Your task to perform on an android device: Show the shopping cart on ebay.com. Add "jbl charge 4" to the cart on ebay.com, then select checkout. Image 0: 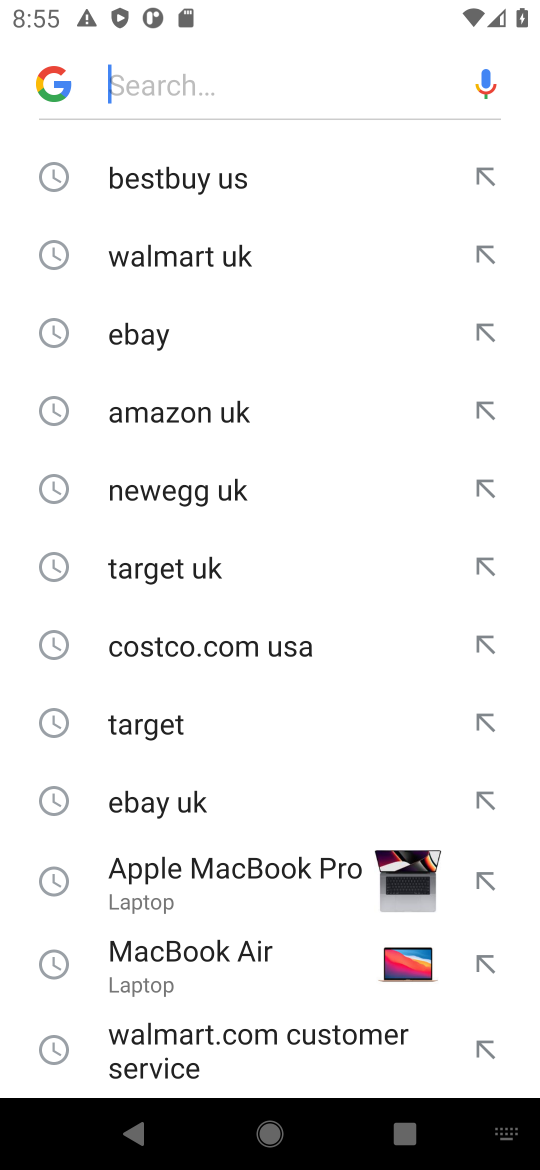
Step 0: press home button
Your task to perform on an android device: Show the shopping cart on ebay.com. Add "jbl charge 4" to the cart on ebay.com, then select checkout. Image 1: 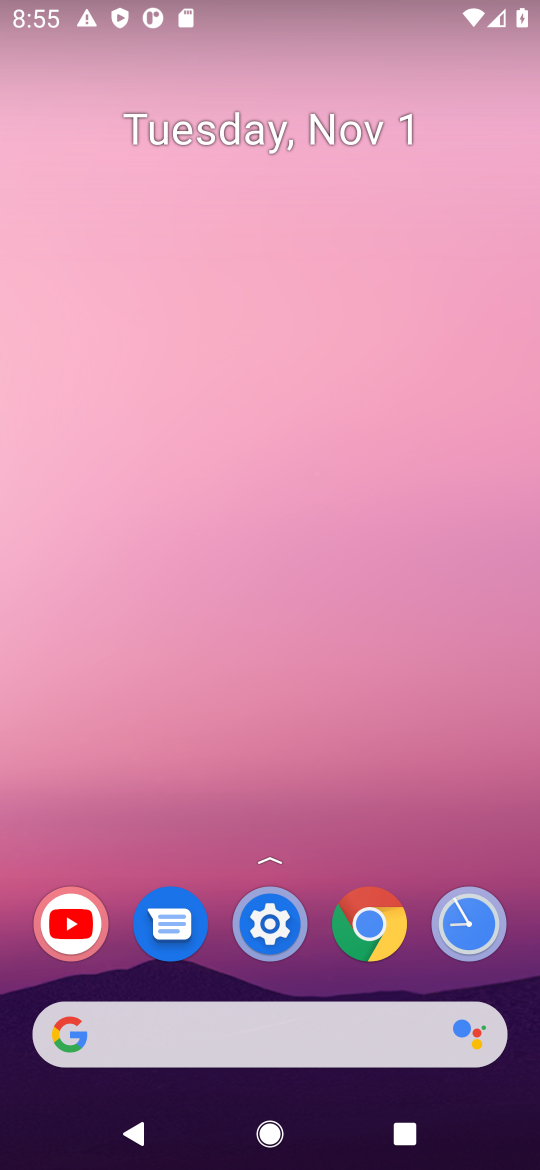
Step 1: click (382, 911)
Your task to perform on an android device: Show the shopping cart on ebay.com. Add "jbl charge 4" to the cart on ebay.com, then select checkout. Image 2: 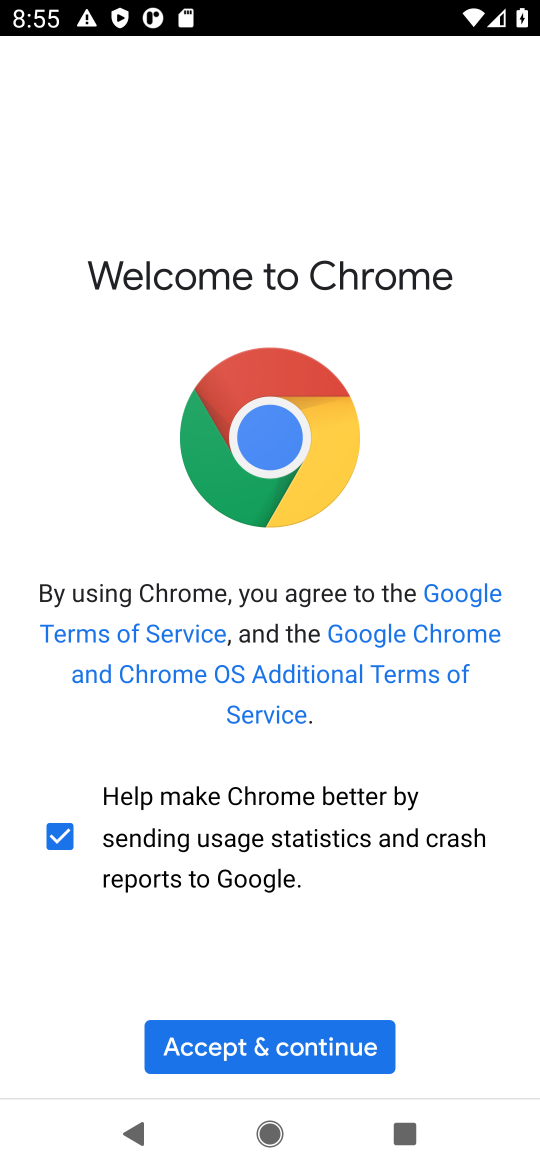
Step 2: click (231, 1039)
Your task to perform on an android device: Show the shopping cart on ebay.com. Add "jbl charge 4" to the cart on ebay.com, then select checkout. Image 3: 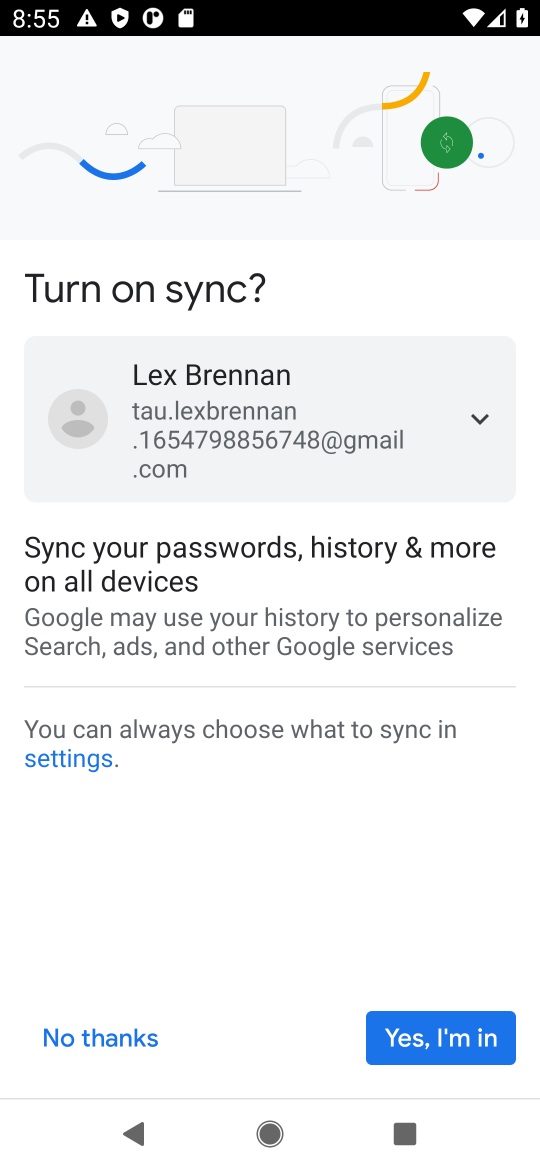
Step 3: click (114, 1038)
Your task to perform on an android device: Show the shopping cart on ebay.com. Add "jbl charge 4" to the cart on ebay.com, then select checkout. Image 4: 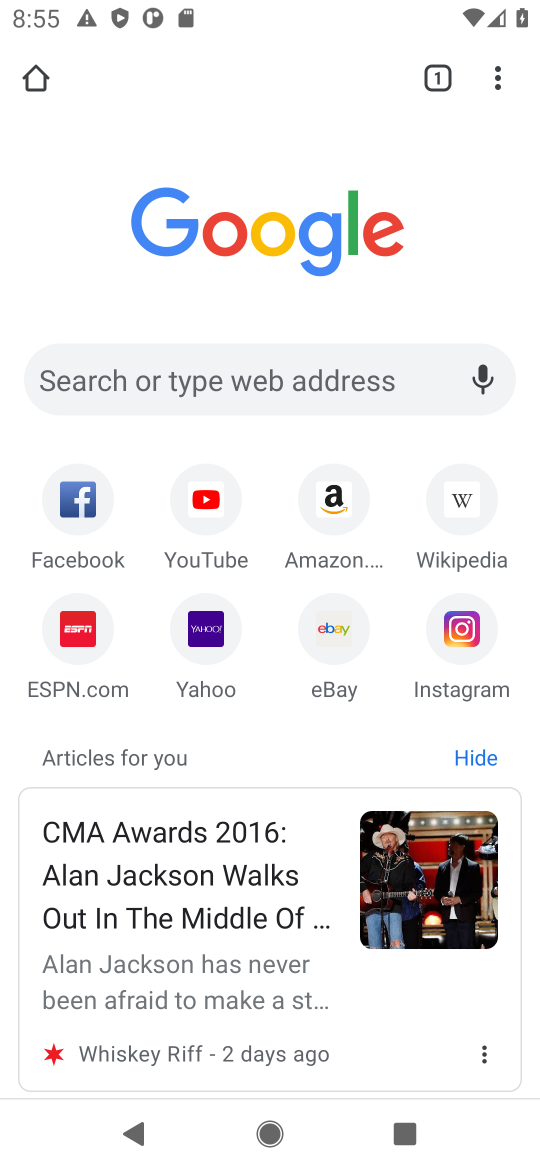
Step 4: click (336, 635)
Your task to perform on an android device: Show the shopping cart on ebay.com. Add "jbl charge 4" to the cart on ebay.com, then select checkout. Image 5: 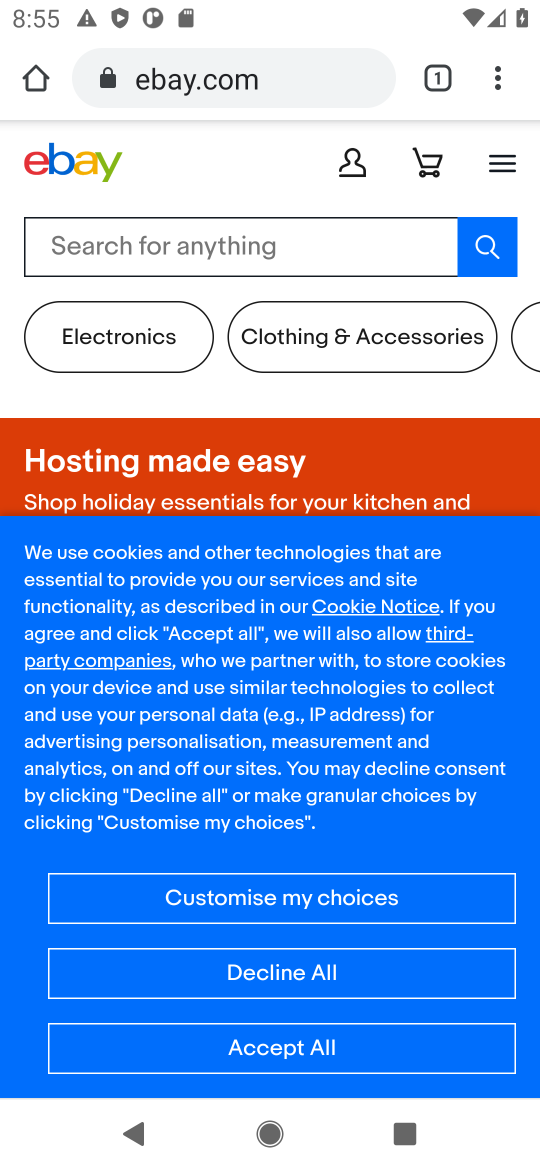
Step 5: click (420, 166)
Your task to perform on an android device: Show the shopping cart on ebay.com. Add "jbl charge 4" to the cart on ebay.com, then select checkout. Image 6: 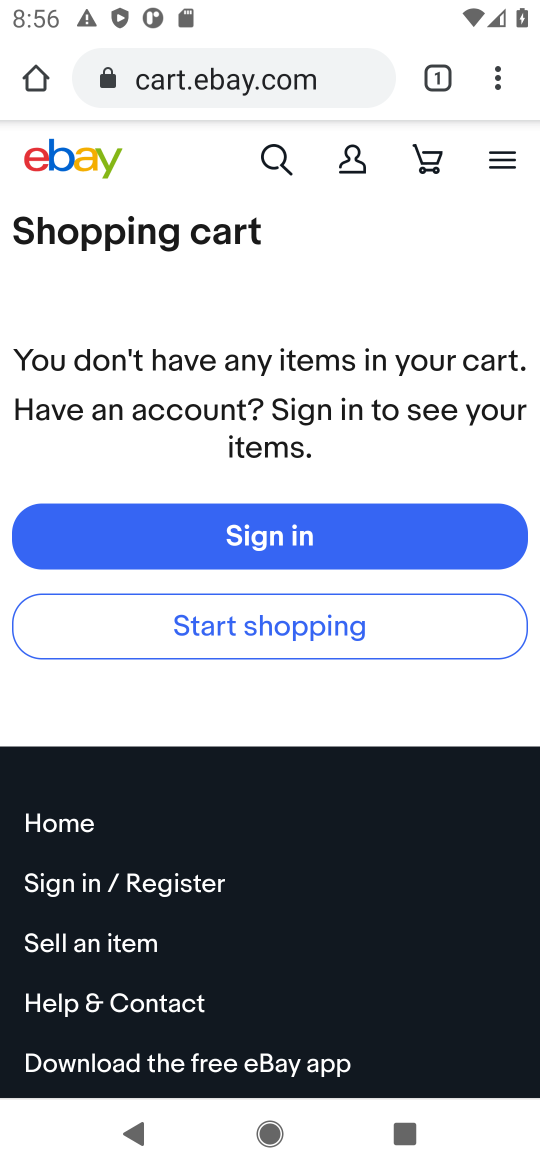
Step 6: click (279, 157)
Your task to perform on an android device: Show the shopping cart on ebay.com. Add "jbl charge 4" to the cart on ebay.com, then select checkout. Image 7: 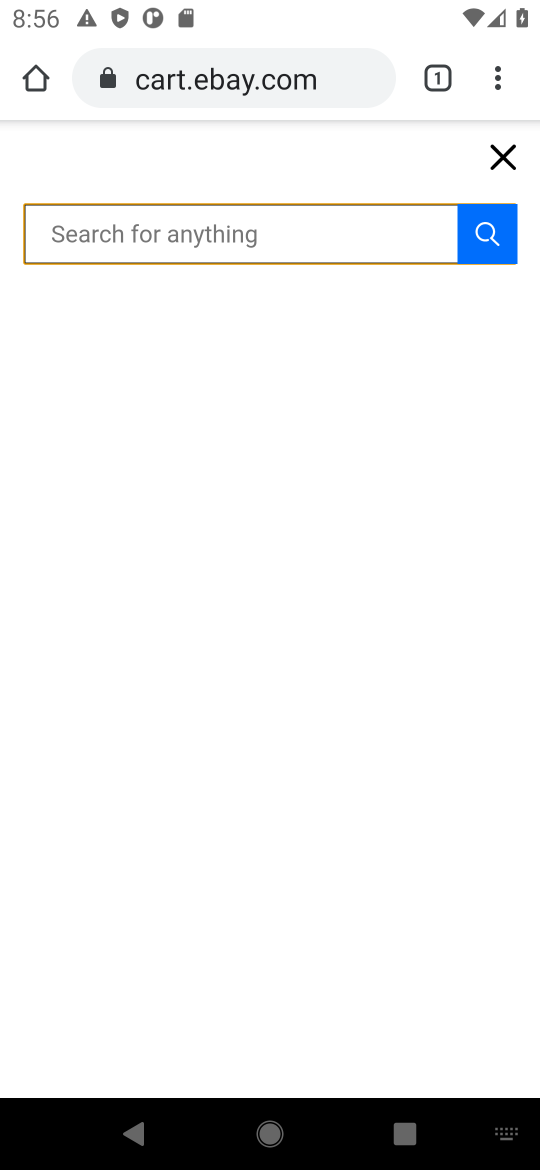
Step 7: type "jbl charge 4"
Your task to perform on an android device: Show the shopping cart on ebay.com. Add "jbl charge 4" to the cart on ebay.com, then select checkout. Image 8: 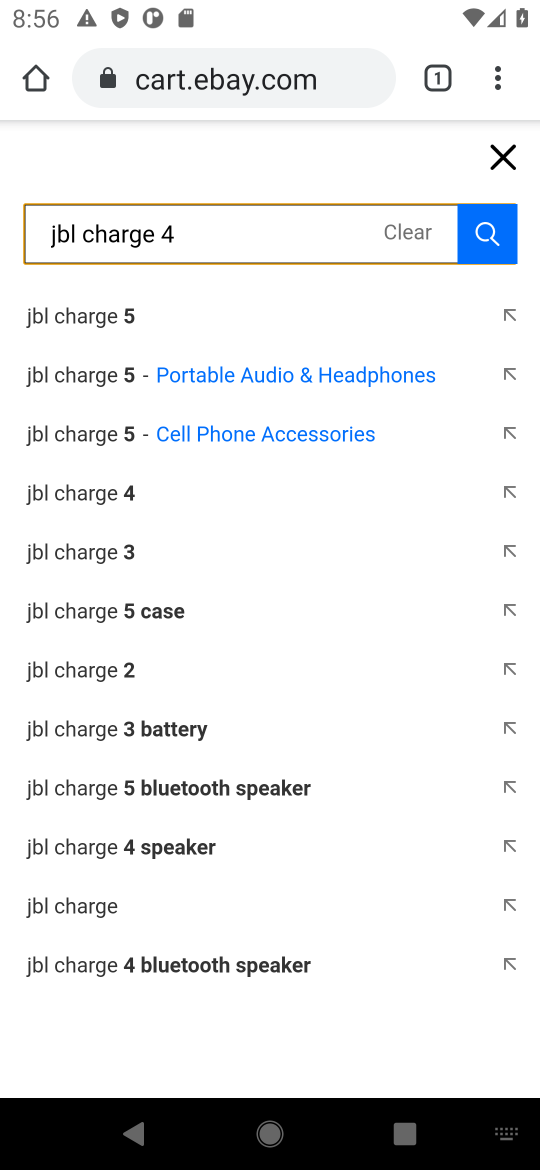
Step 8: press enter
Your task to perform on an android device: Show the shopping cart on ebay.com. Add "jbl charge 4" to the cart on ebay.com, then select checkout. Image 9: 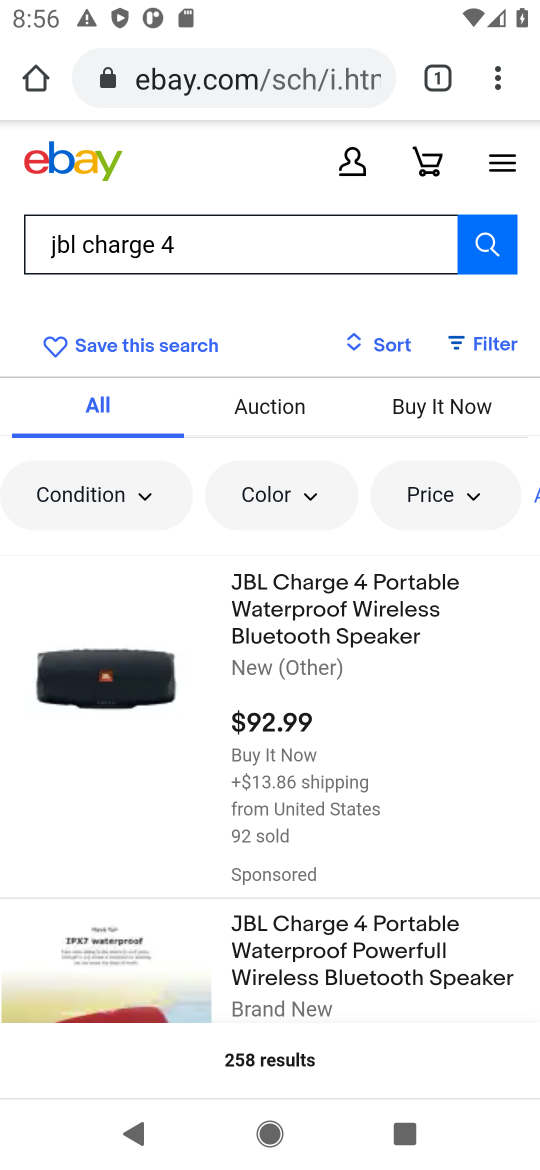
Step 9: click (323, 601)
Your task to perform on an android device: Show the shopping cart on ebay.com. Add "jbl charge 4" to the cart on ebay.com, then select checkout. Image 10: 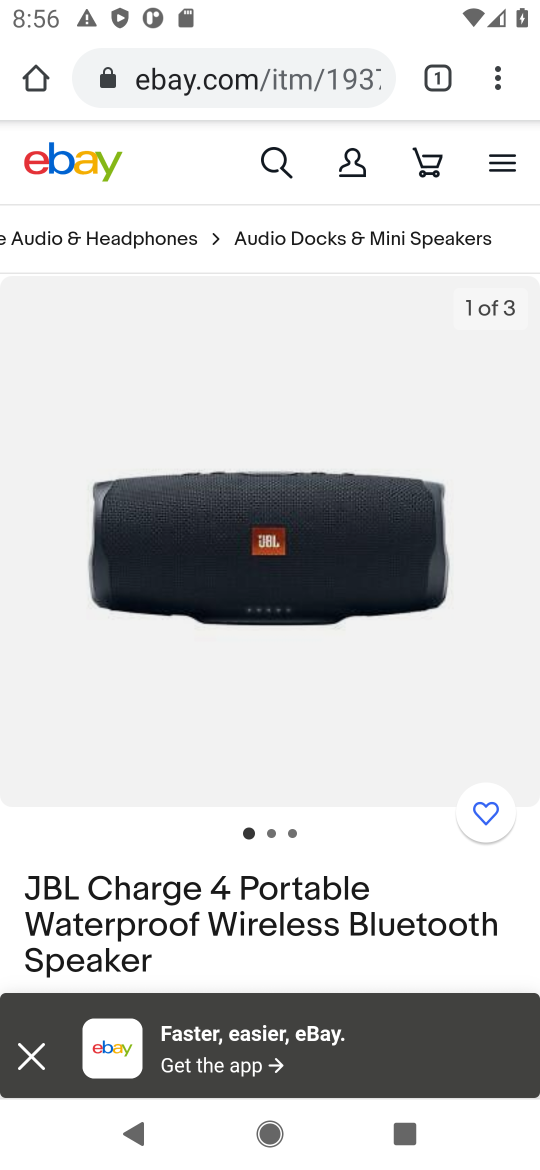
Step 10: click (34, 1054)
Your task to perform on an android device: Show the shopping cart on ebay.com. Add "jbl charge 4" to the cart on ebay.com, then select checkout. Image 11: 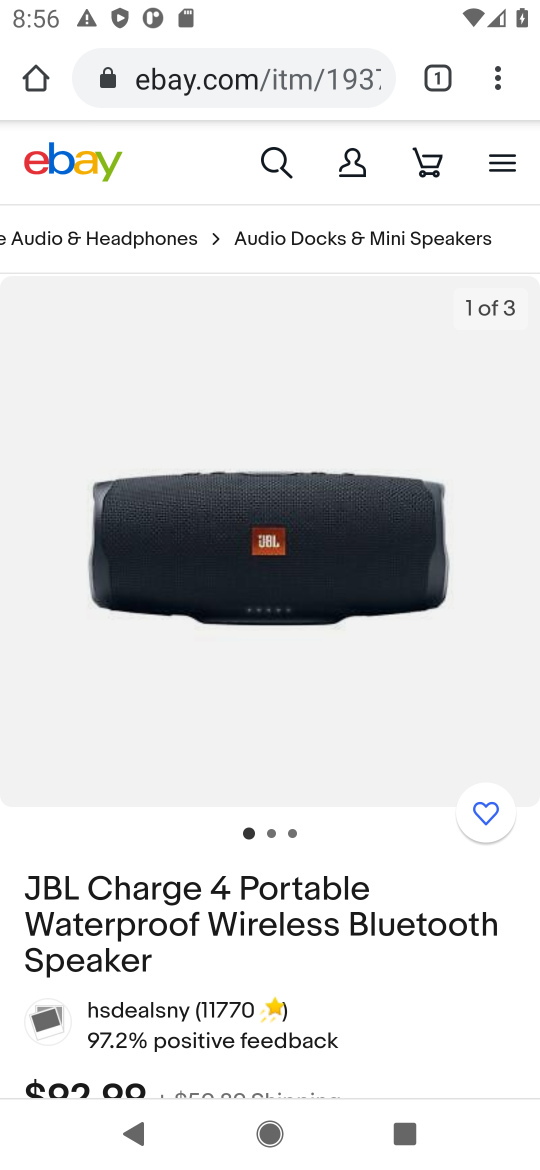
Step 11: drag from (466, 986) to (316, 459)
Your task to perform on an android device: Show the shopping cart on ebay.com. Add "jbl charge 4" to the cart on ebay.com, then select checkout. Image 12: 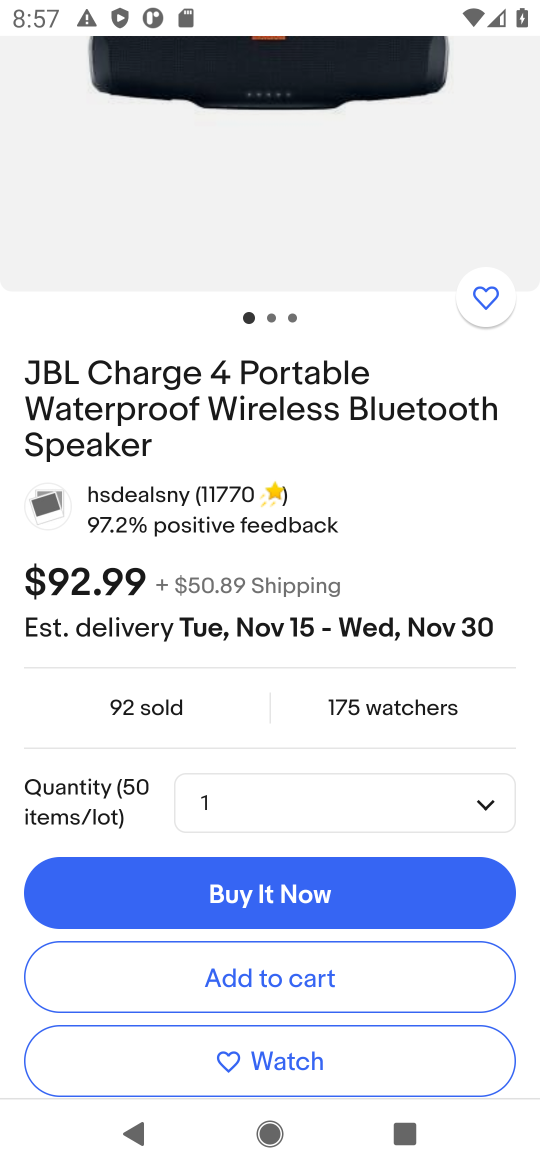
Step 12: click (264, 980)
Your task to perform on an android device: Show the shopping cart on ebay.com. Add "jbl charge 4" to the cart on ebay.com, then select checkout. Image 13: 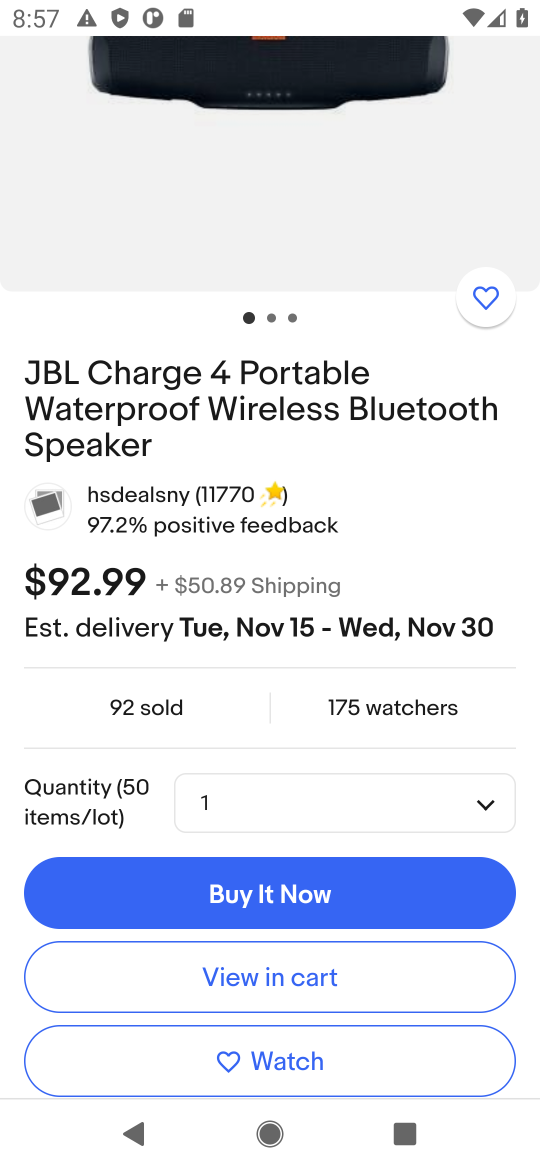
Step 13: click (264, 980)
Your task to perform on an android device: Show the shopping cart on ebay.com. Add "jbl charge 4" to the cart on ebay.com, then select checkout. Image 14: 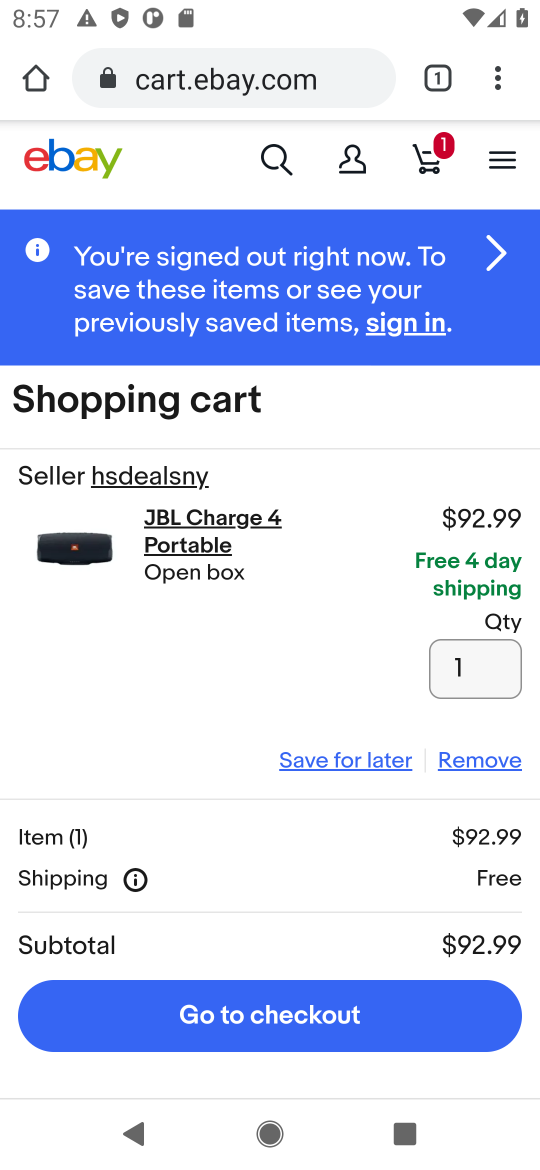
Step 14: click (316, 1019)
Your task to perform on an android device: Show the shopping cart on ebay.com. Add "jbl charge 4" to the cart on ebay.com, then select checkout. Image 15: 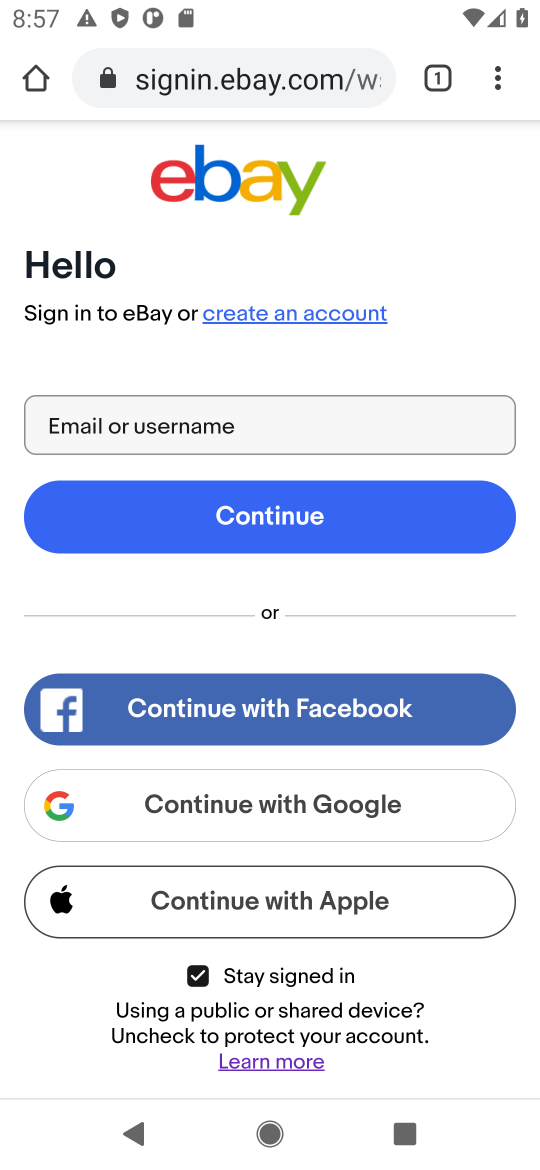
Step 15: task complete